Your task to perform on an android device: Open Android settings Image 0: 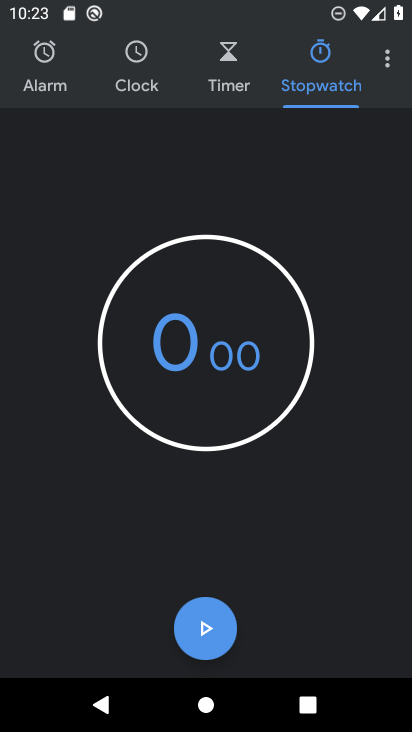
Step 0: press home button
Your task to perform on an android device: Open Android settings Image 1: 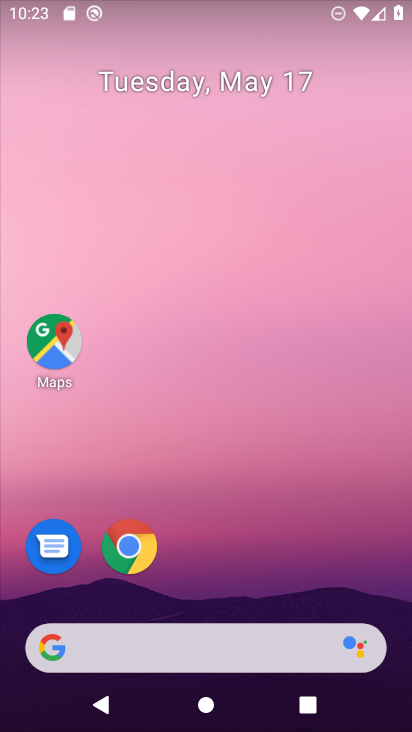
Step 1: drag from (280, 595) to (291, 3)
Your task to perform on an android device: Open Android settings Image 2: 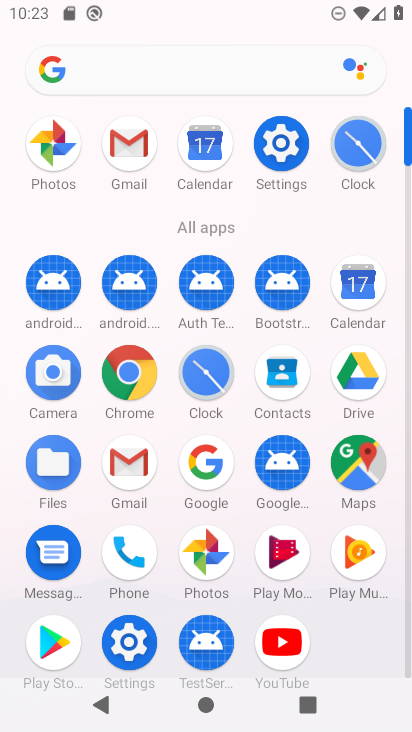
Step 2: click (113, 645)
Your task to perform on an android device: Open Android settings Image 3: 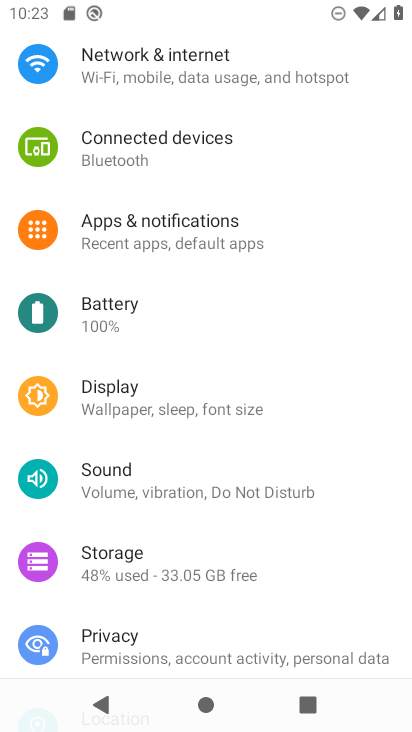
Step 3: task complete